Your task to perform on an android device: Clear the cart on ebay. Image 0: 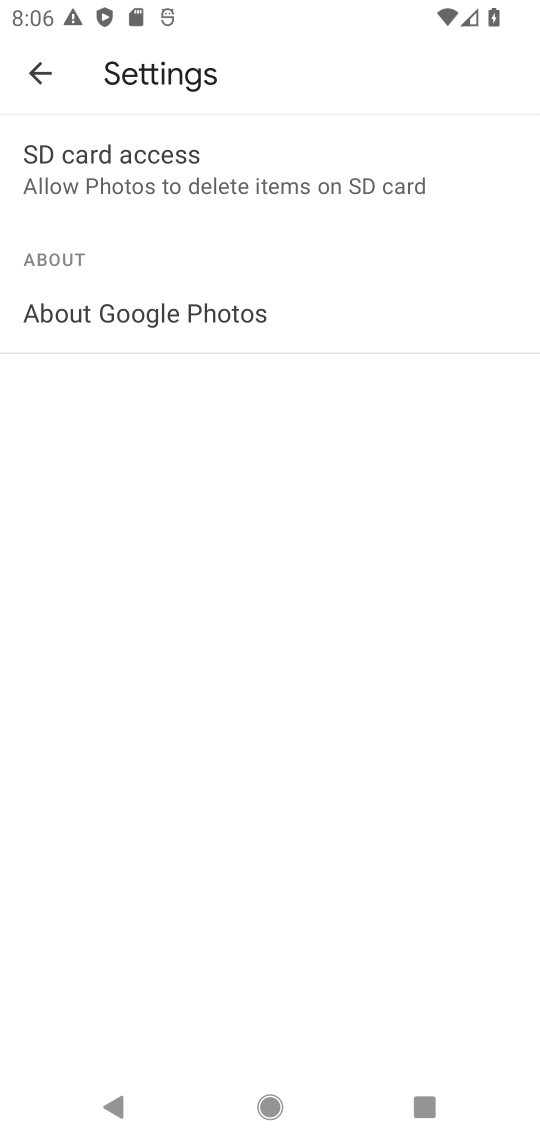
Step 0: press home button
Your task to perform on an android device: Clear the cart on ebay. Image 1: 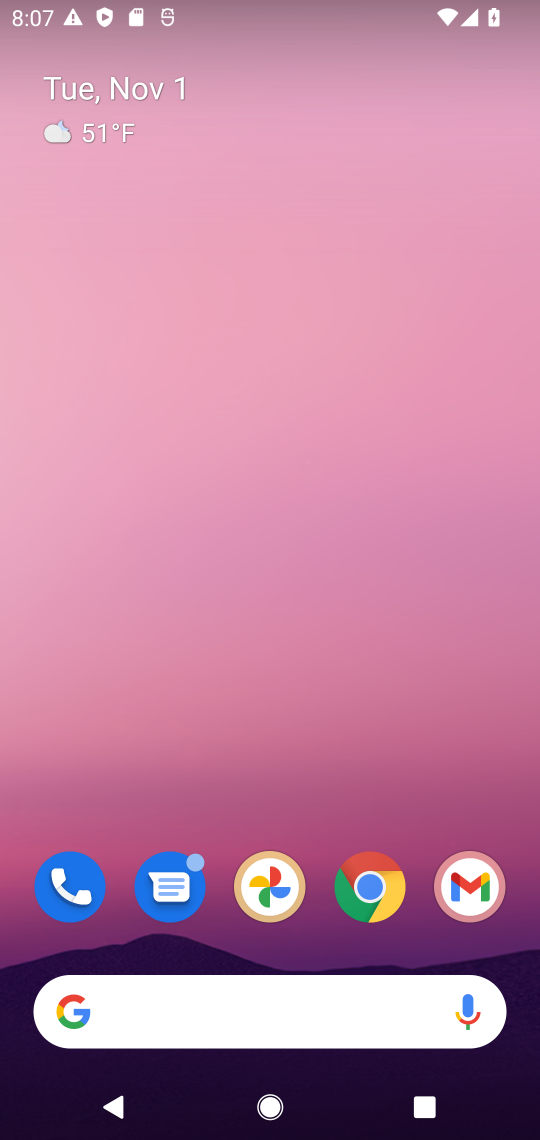
Step 1: drag from (362, 989) to (350, 438)
Your task to perform on an android device: Clear the cart on ebay. Image 2: 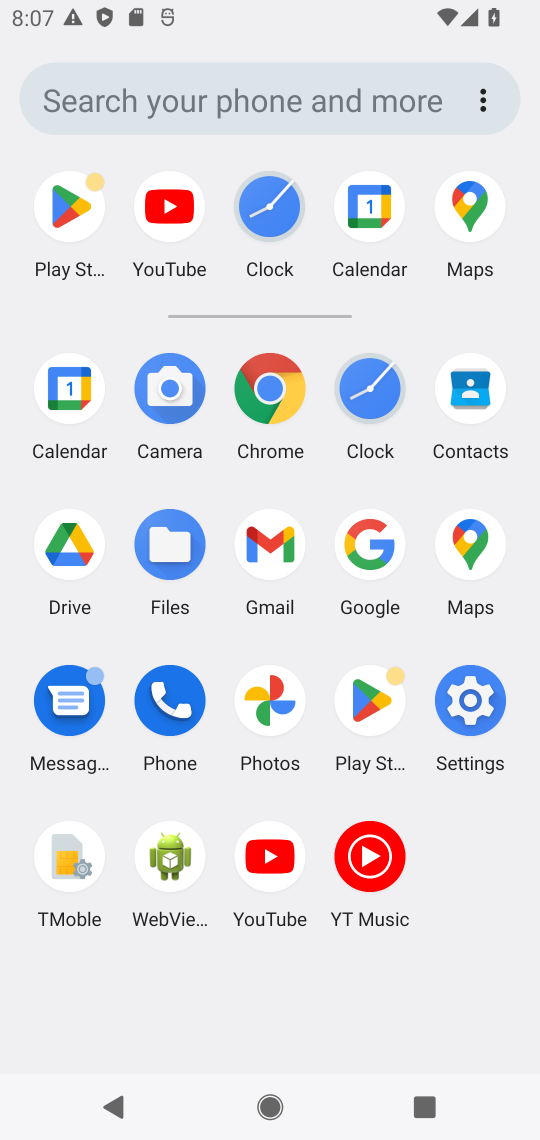
Step 2: click (352, 543)
Your task to perform on an android device: Clear the cart on ebay. Image 3: 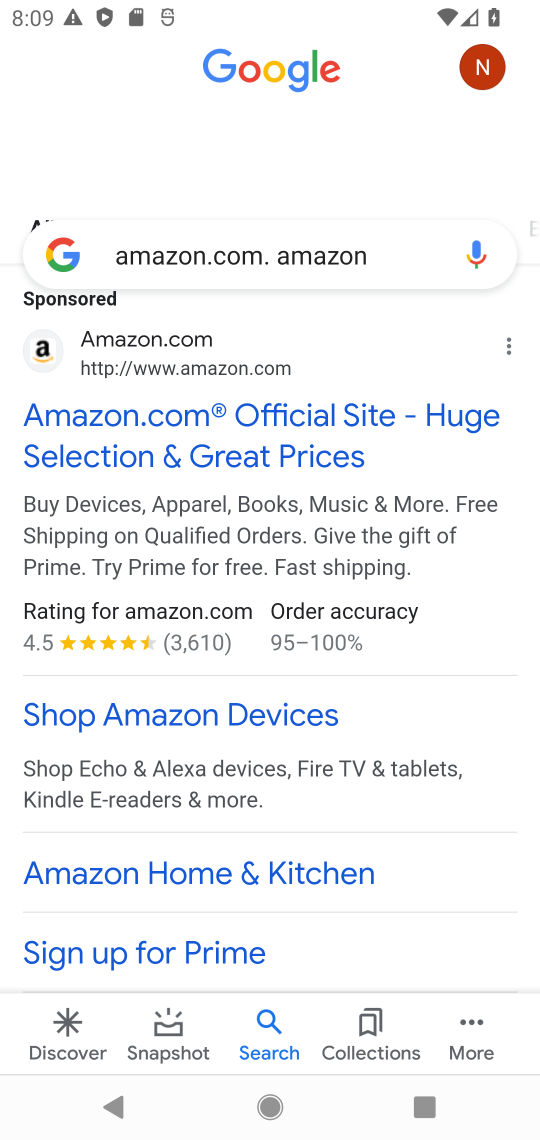
Step 3: click (321, 258)
Your task to perform on an android device: Clear the cart on ebay. Image 4: 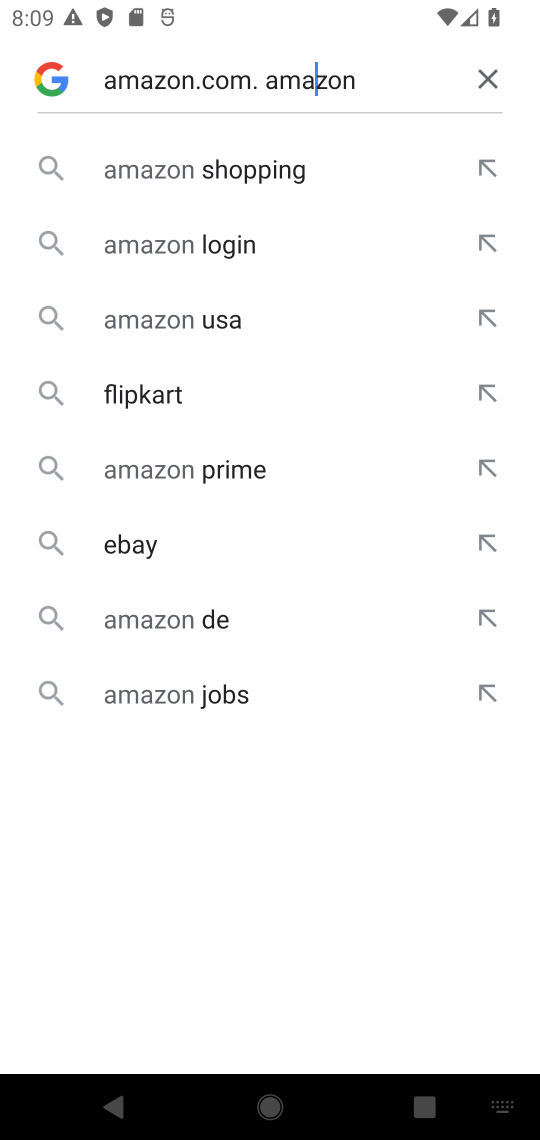
Step 4: click (490, 91)
Your task to perform on an android device: Clear the cart on ebay. Image 5: 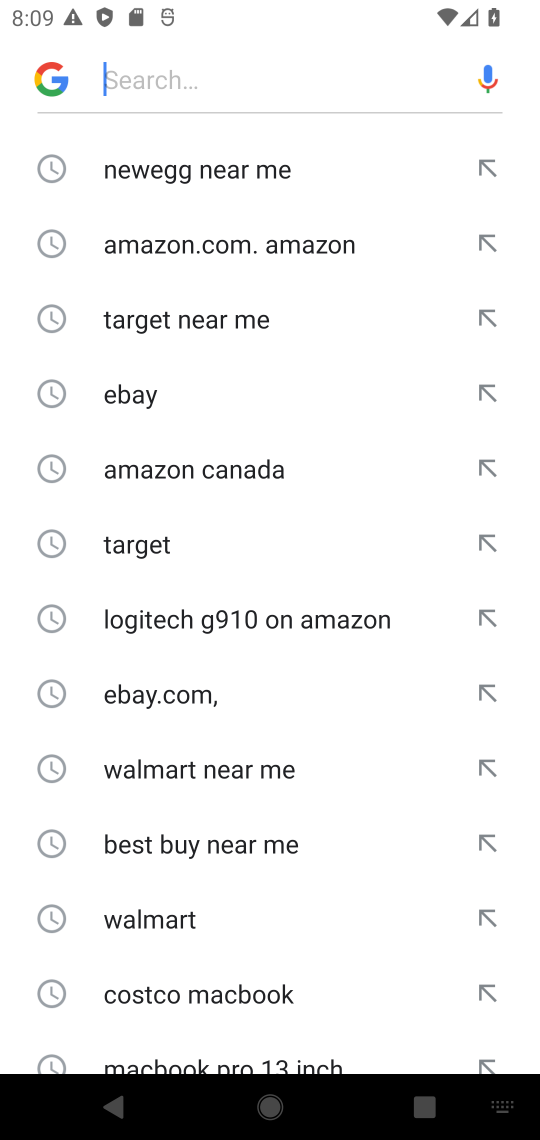
Step 5: click (154, 391)
Your task to perform on an android device: Clear the cart on ebay. Image 6: 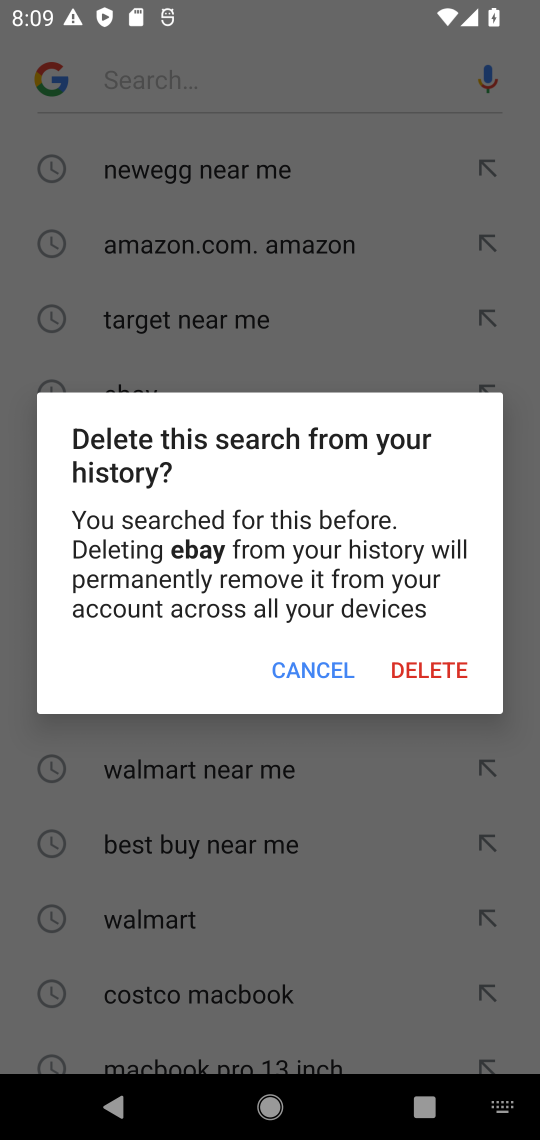
Step 6: click (304, 653)
Your task to perform on an android device: Clear the cart on ebay. Image 7: 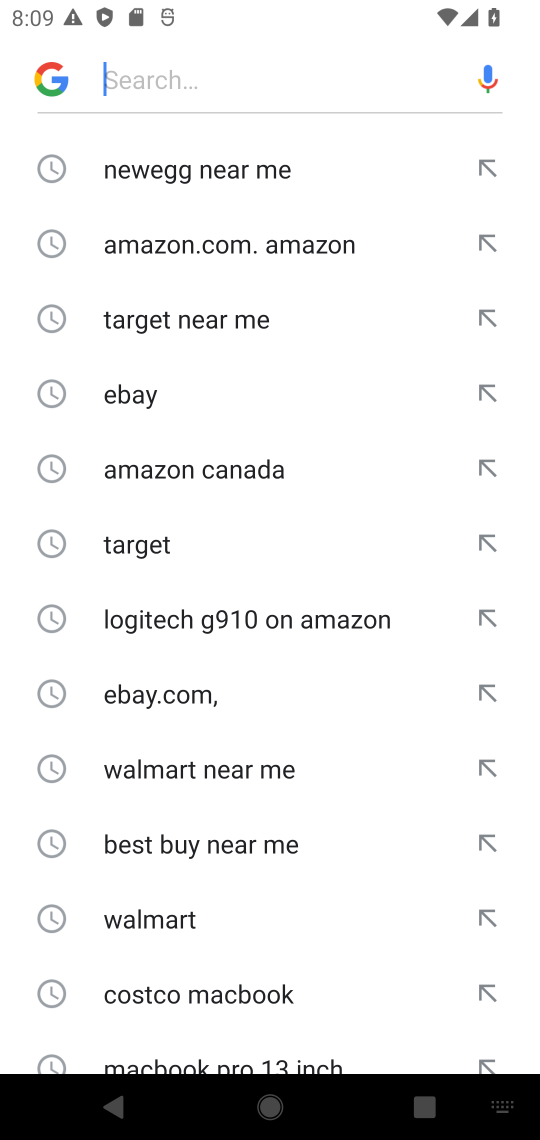
Step 7: click (115, 389)
Your task to perform on an android device: Clear the cart on ebay. Image 8: 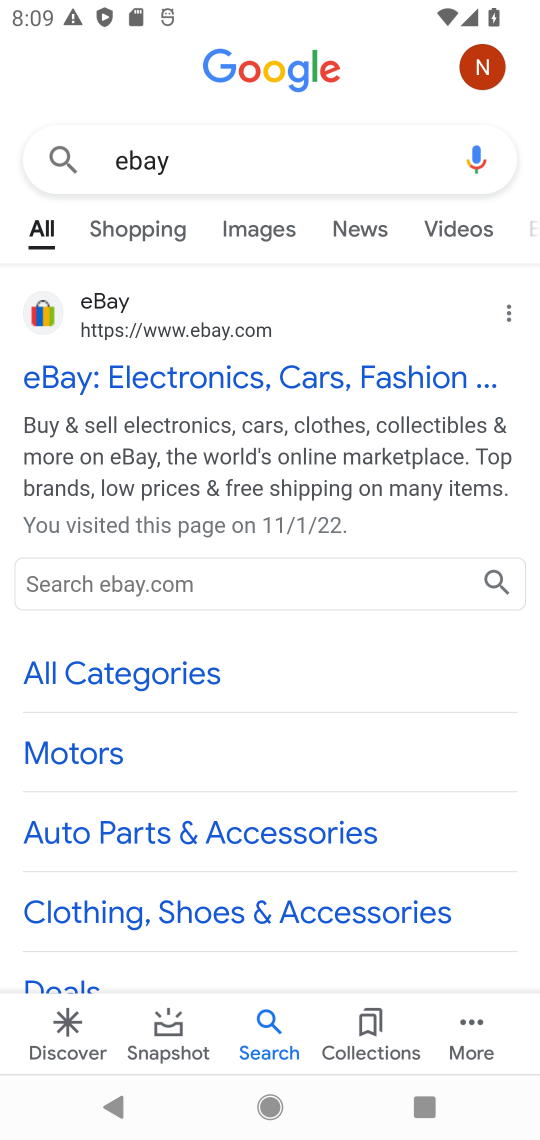
Step 8: click (138, 370)
Your task to perform on an android device: Clear the cart on ebay. Image 9: 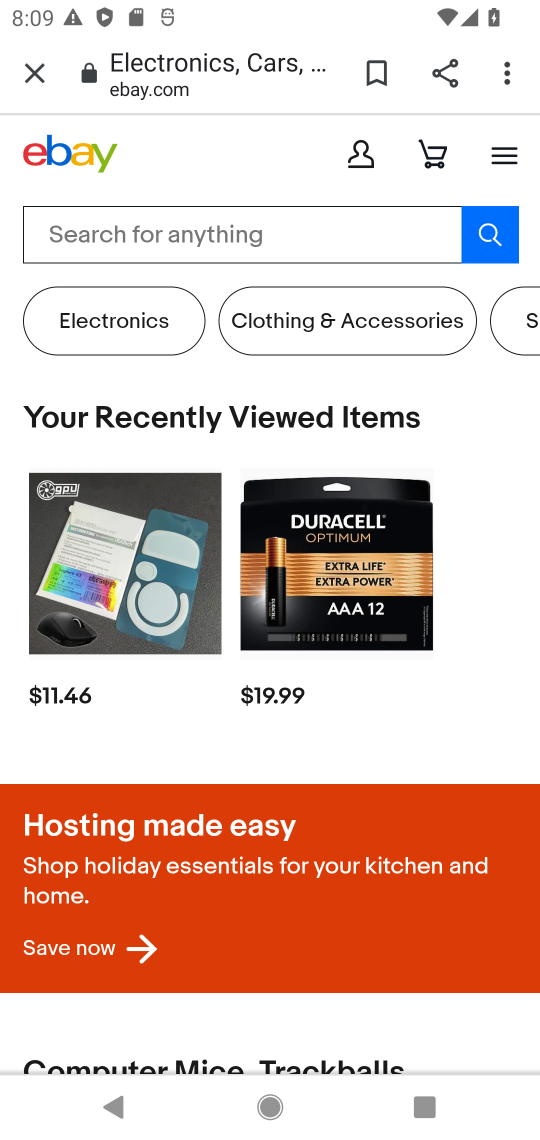
Step 9: click (429, 136)
Your task to perform on an android device: Clear the cart on ebay. Image 10: 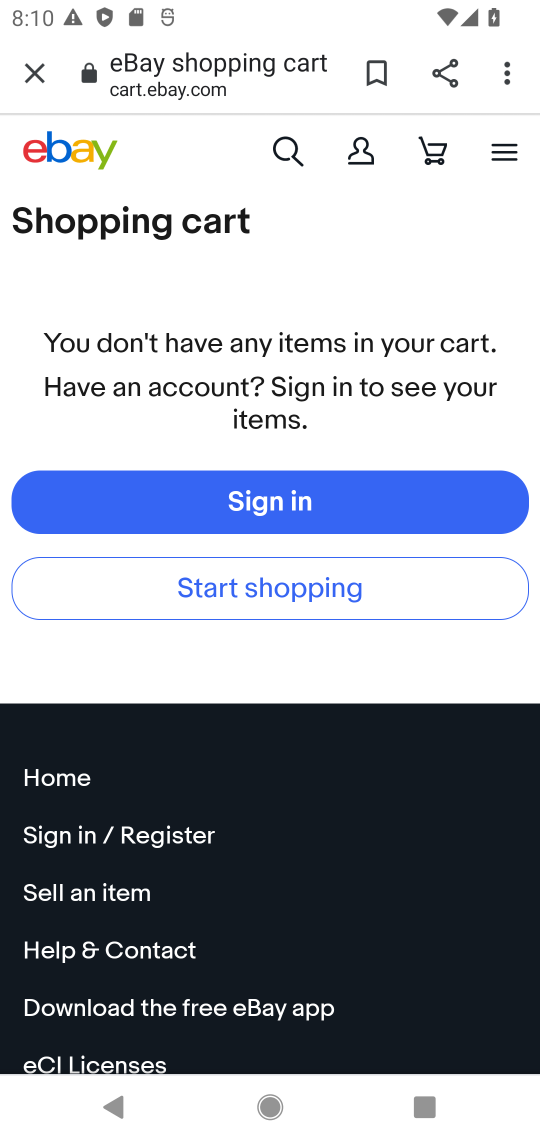
Step 10: task complete